Your task to perform on an android device: move an email to a new category in the gmail app Image 0: 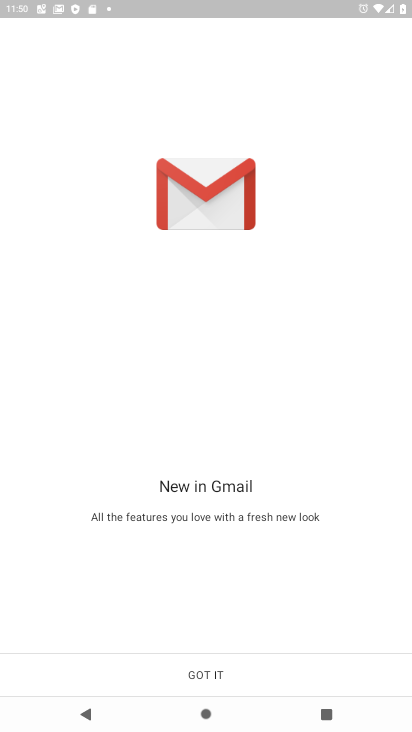
Step 0: press home button
Your task to perform on an android device: move an email to a new category in the gmail app Image 1: 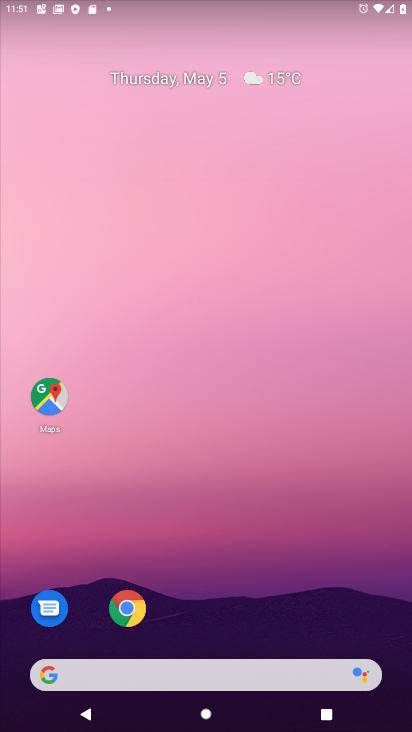
Step 1: drag from (208, 615) to (246, 130)
Your task to perform on an android device: move an email to a new category in the gmail app Image 2: 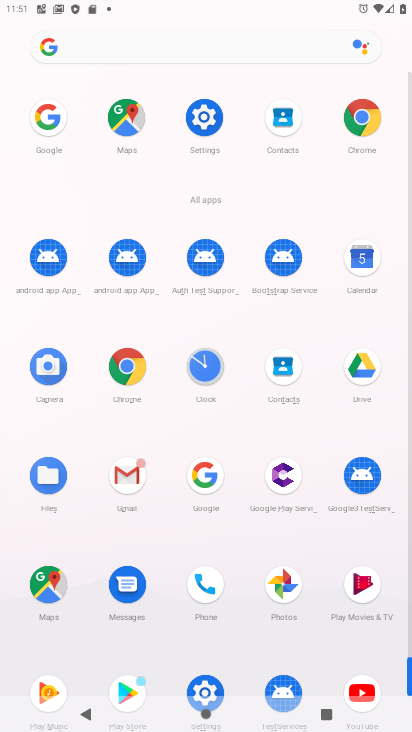
Step 2: click (141, 479)
Your task to perform on an android device: move an email to a new category in the gmail app Image 3: 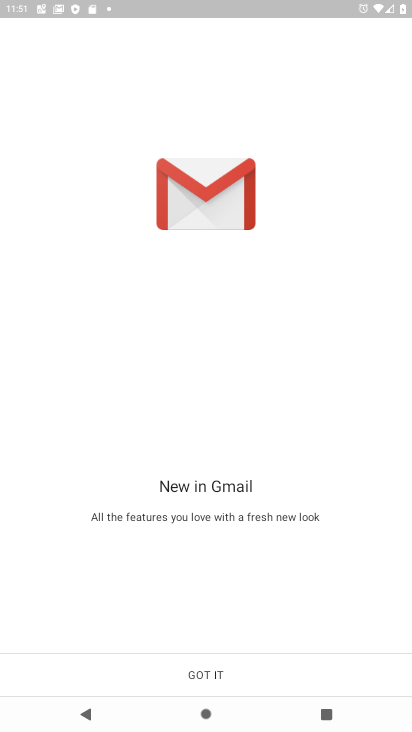
Step 3: click (198, 668)
Your task to perform on an android device: move an email to a new category in the gmail app Image 4: 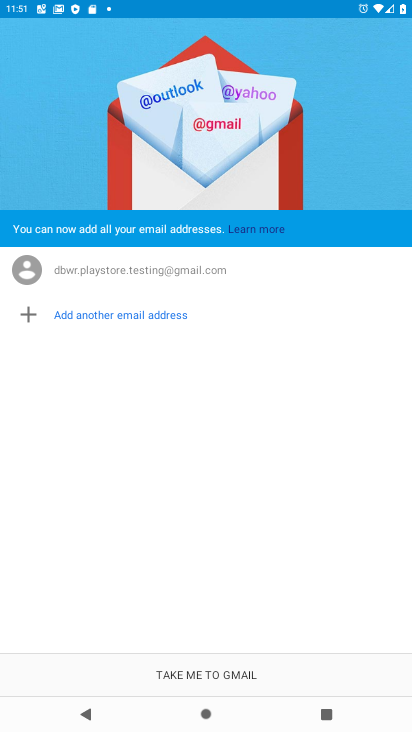
Step 4: click (201, 666)
Your task to perform on an android device: move an email to a new category in the gmail app Image 5: 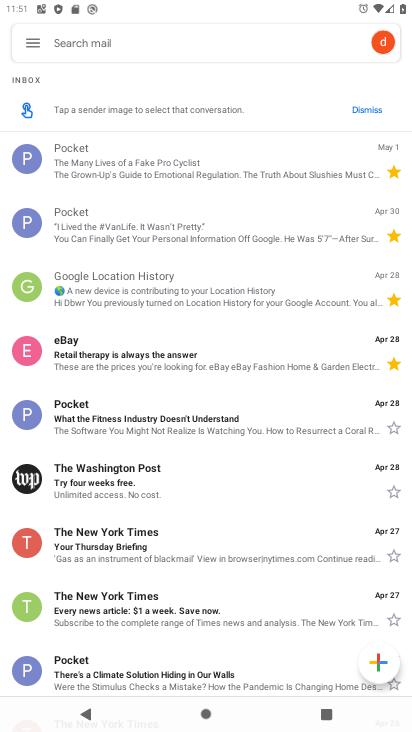
Step 5: click (28, 168)
Your task to perform on an android device: move an email to a new category in the gmail app Image 6: 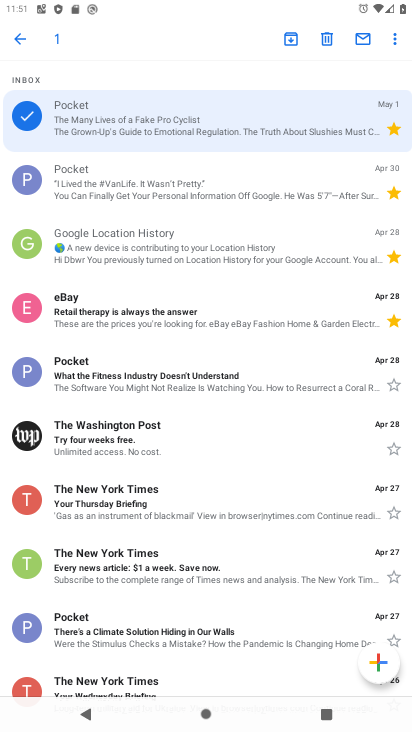
Step 6: click (398, 41)
Your task to perform on an android device: move an email to a new category in the gmail app Image 7: 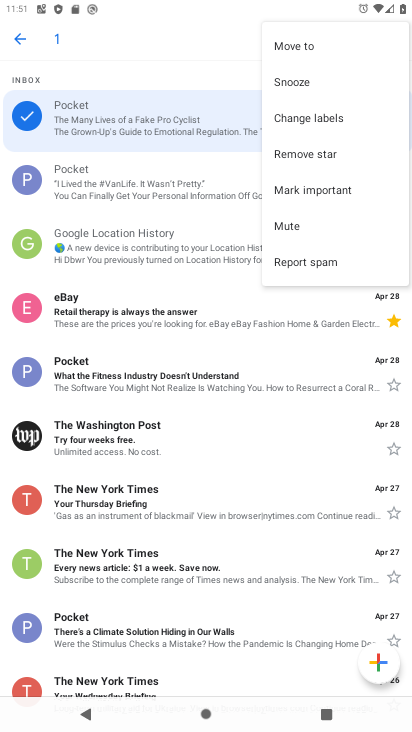
Step 7: click (314, 189)
Your task to perform on an android device: move an email to a new category in the gmail app Image 8: 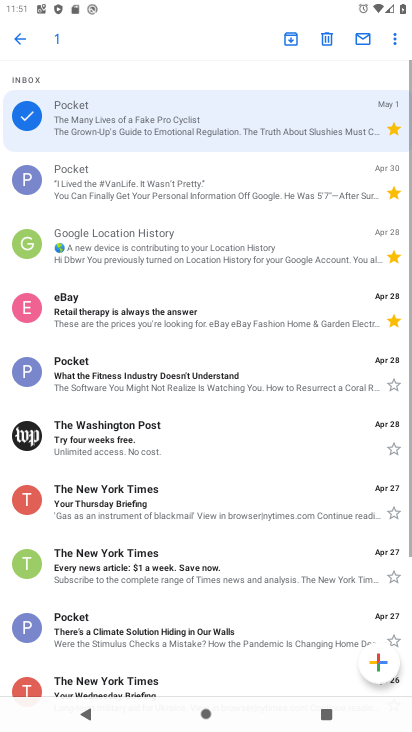
Step 8: task complete